Your task to perform on an android device: allow notifications from all sites in the chrome app Image 0: 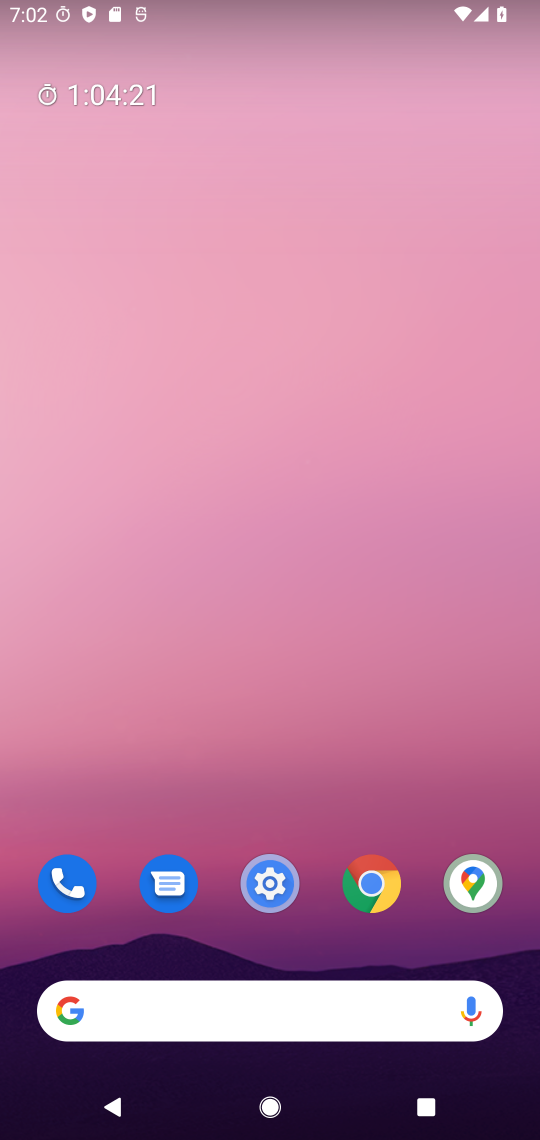
Step 0: drag from (185, 759) to (187, 662)
Your task to perform on an android device: allow notifications from all sites in the chrome app Image 1: 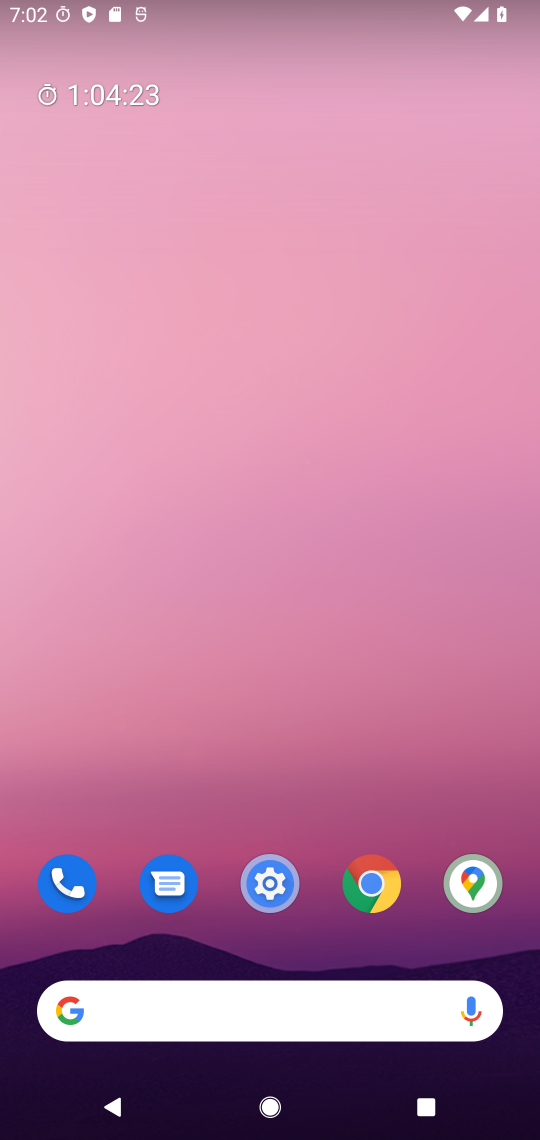
Step 1: click (368, 862)
Your task to perform on an android device: allow notifications from all sites in the chrome app Image 2: 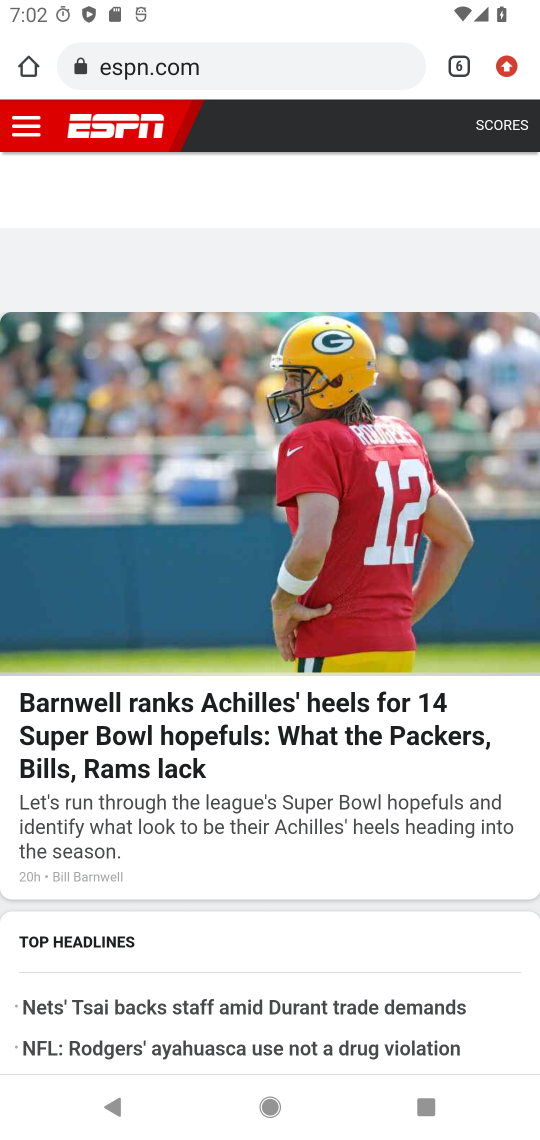
Step 2: click (507, 67)
Your task to perform on an android device: allow notifications from all sites in the chrome app Image 3: 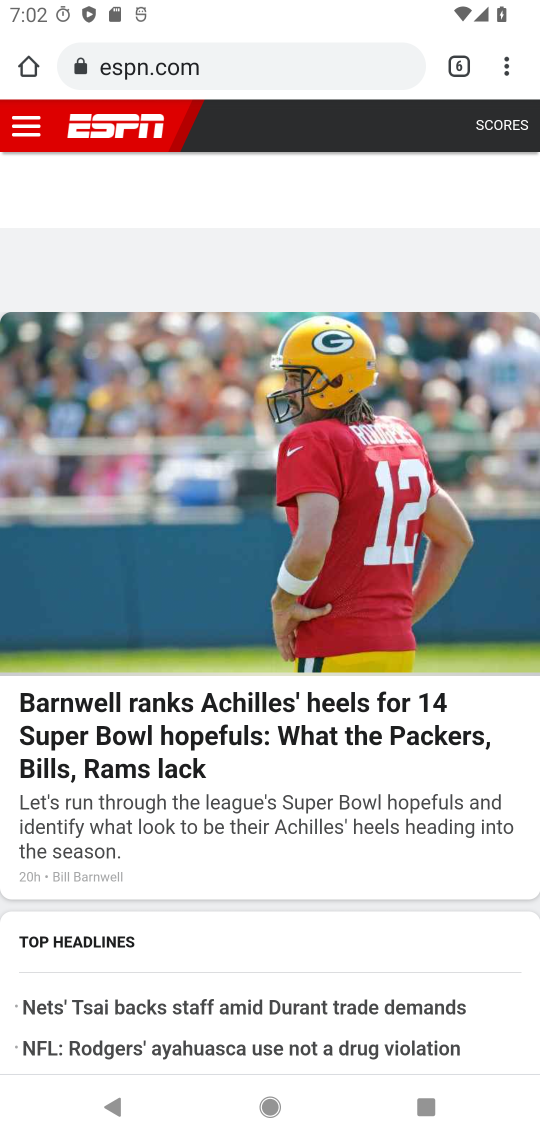
Step 3: click (509, 75)
Your task to perform on an android device: allow notifications from all sites in the chrome app Image 4: 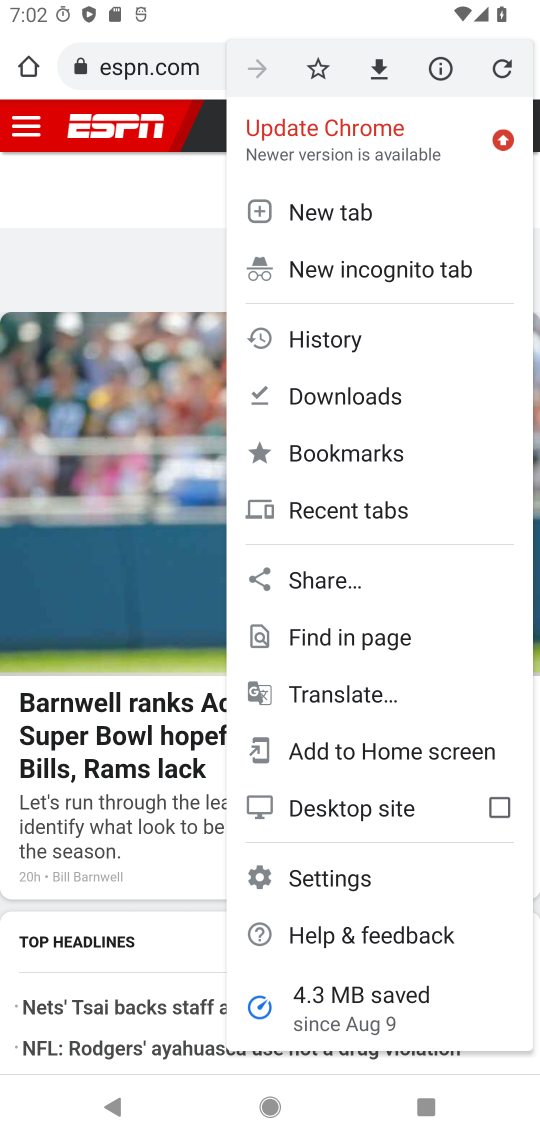
Step 4: click (331, 882)
Your task to perform on an android device: allow notifications from all sites in the chrome app Image 5: 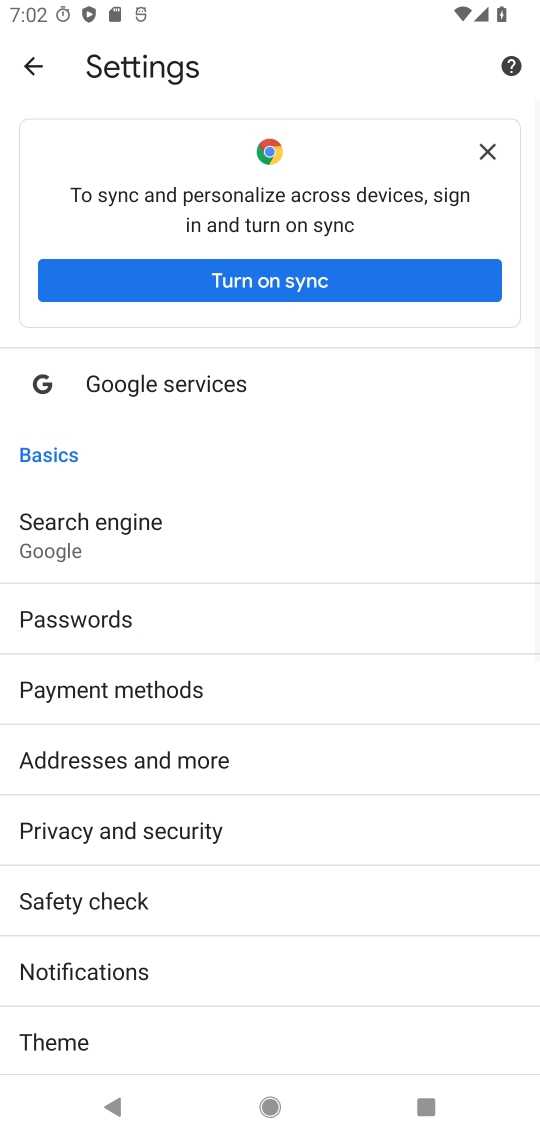
Step 5: drag from (262, 957) to (341, 415)
Your task to perform on an android device: allow notifications from all sites in the chrome app Image 6: 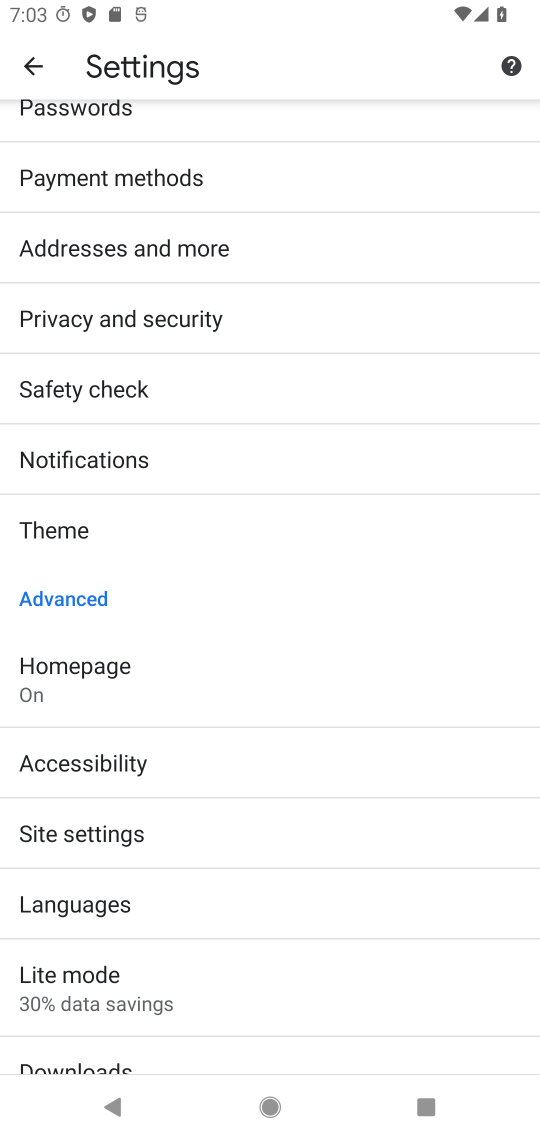
Step 6: drag from (193, 857) to (219, 466)
Your task to perform on an android device: allow notifications from all sites in the chrome app Image 7: 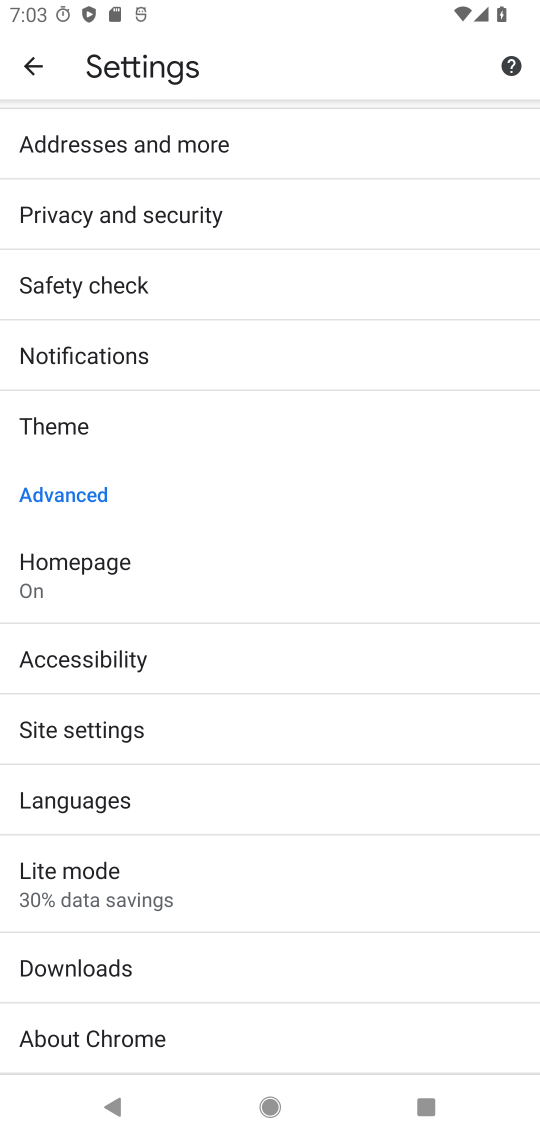
Step 7: drag from (280, 373) to (282, 839)
Your task to perform on an android device: allow notifications from all sites in the chrome app Image 8: 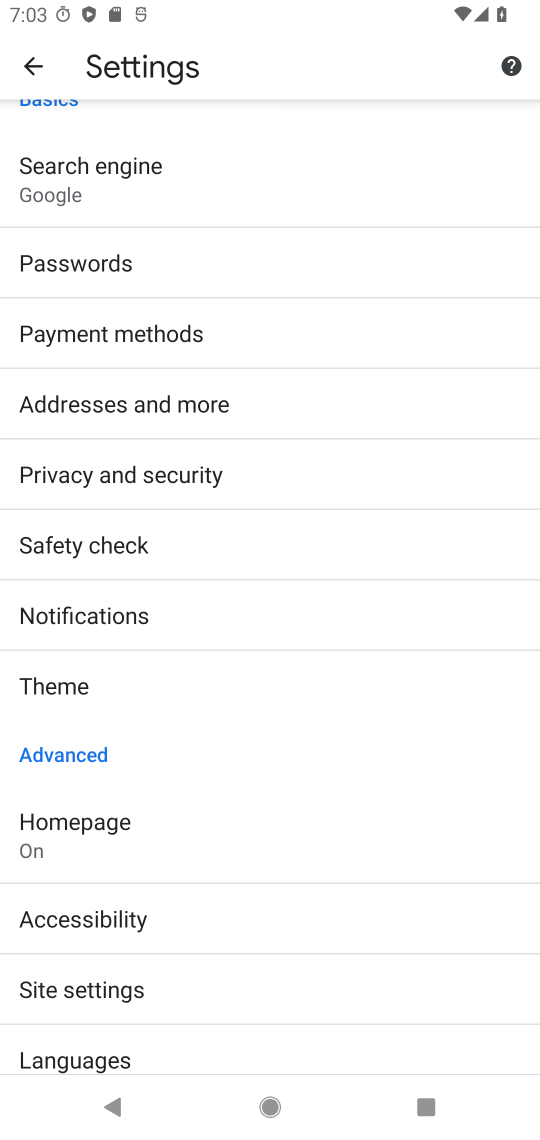
Step 8: click (201, 621)
Your task to perform on an android device: allow notifications from all sites in the chrome app Image 9: 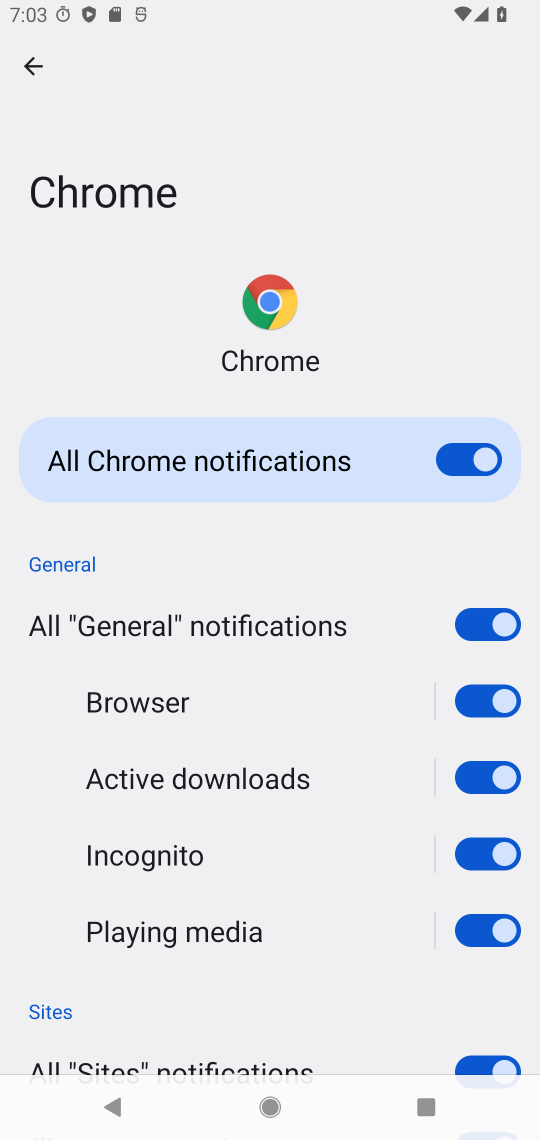
Step 9: task complete